Your task to perform on an android device: Open battery settings Image 0: 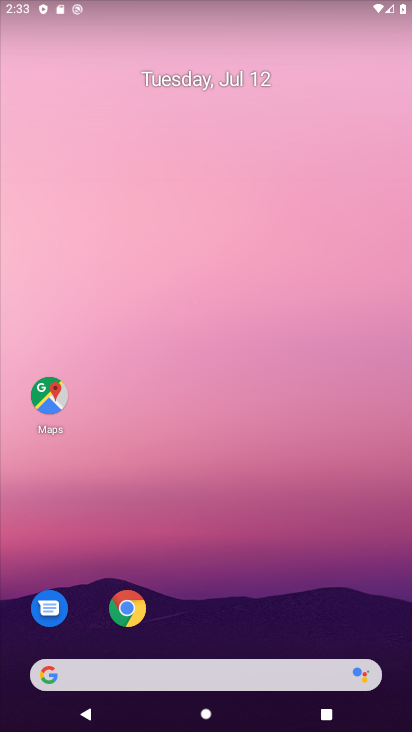
Step 0: drag from (293, 588) to (262, 0)
Your task to perform on an android device: Open battery settings Image 1: 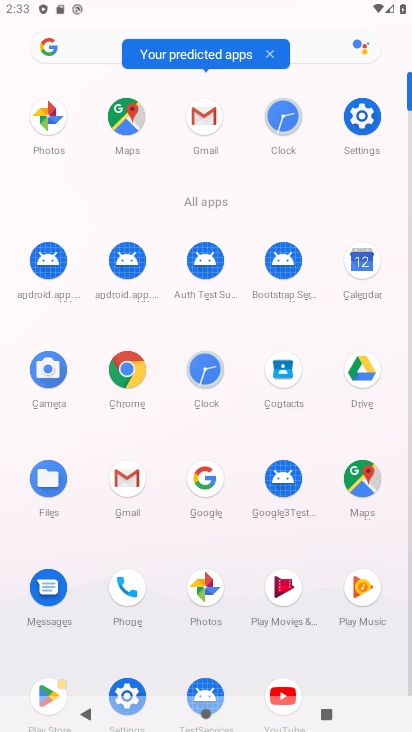
Step 1: click (364, 118)
Your task to perform on an android device: Open battery settings Image 2: 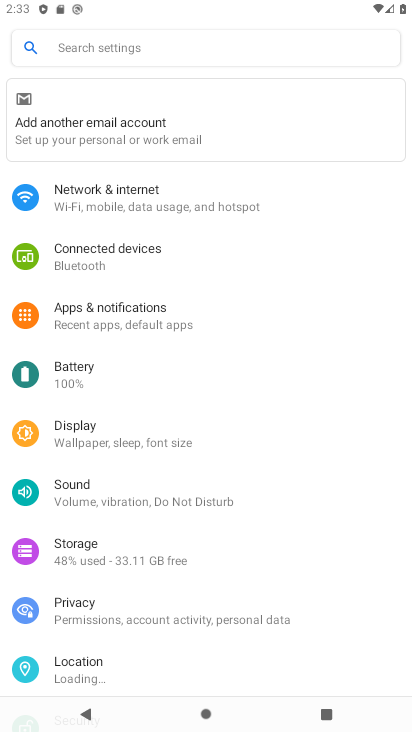
Step 2: click (136, 375)
Your task to perform on an android device: Open battery settings Image 3: 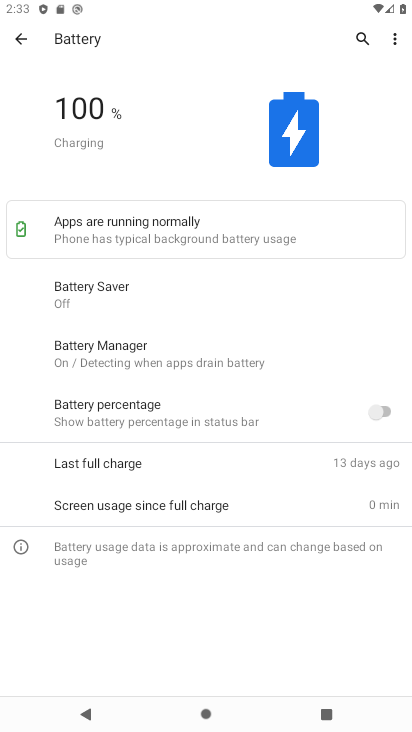
Step 3: task complete